Your task to perform on an android device: What is the recent news? Image 0: 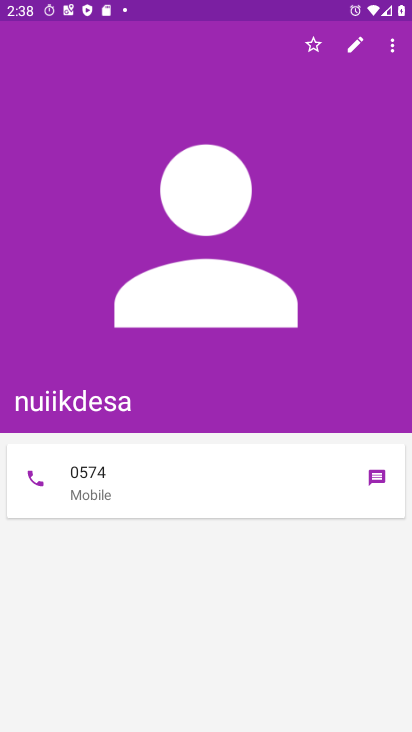
Step 0: press home button
Your task to perform on an android device: What is the recent news? Image 1: 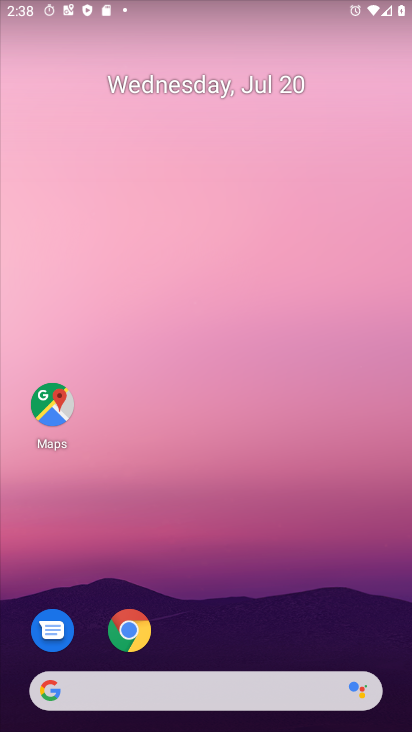
Step 1: click (171, 687)
Your task to perform on an android device: What is the recent news? Image 2: 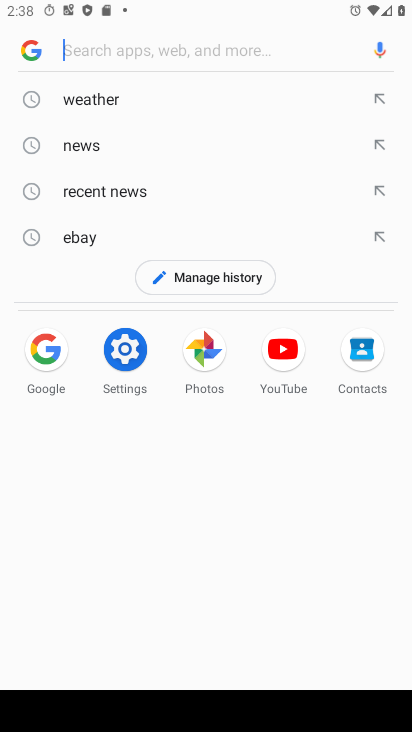
Step 2: click (88, 194)
Your task to perform on an android device: What is the recent news? Image 3: 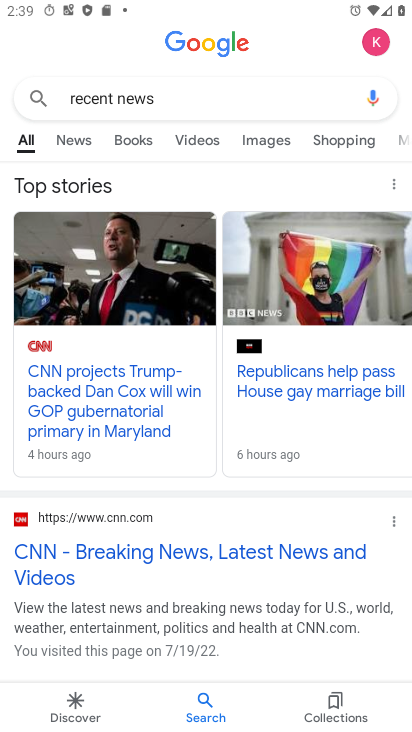
Step 3: click (79, 146)
Your task to perform on an android device: What is the recent news? Image 4: 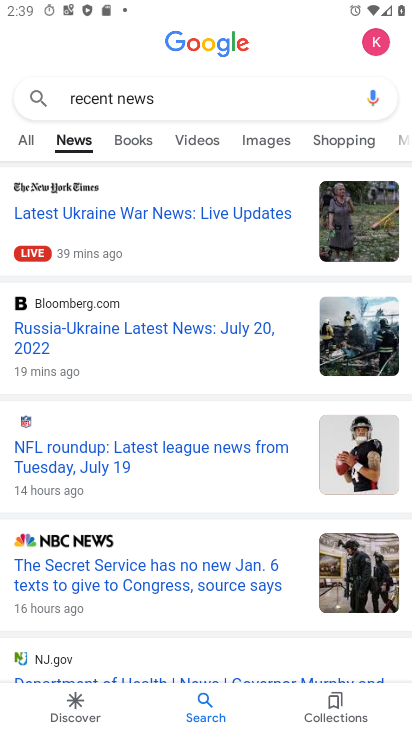
Step 4: task complete